Your task to perform on an android device: change the clock style Image 0: 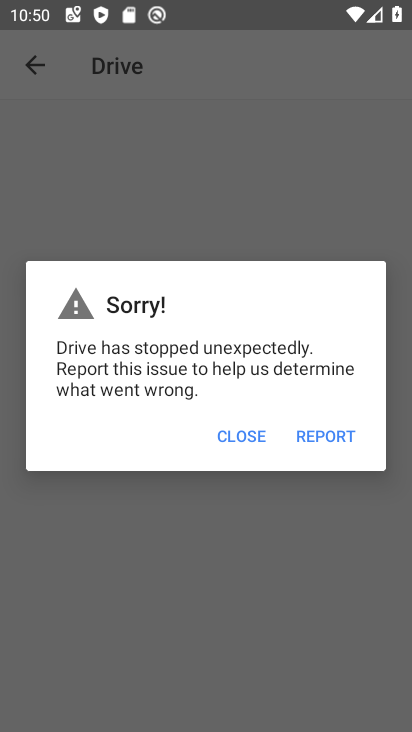
Step 0: click (252, 428)
Your task to perform on an android device: change the clock style Image 1: 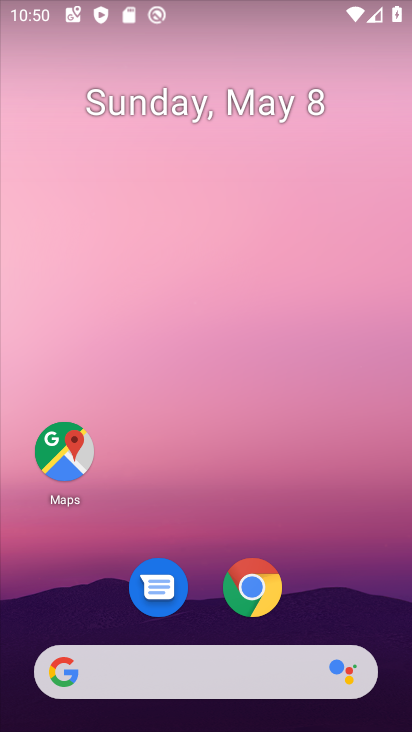
Step 1: drag from (224, 383) to (86, 7)
Your task to perform on an android device: change the clock style Image 2: 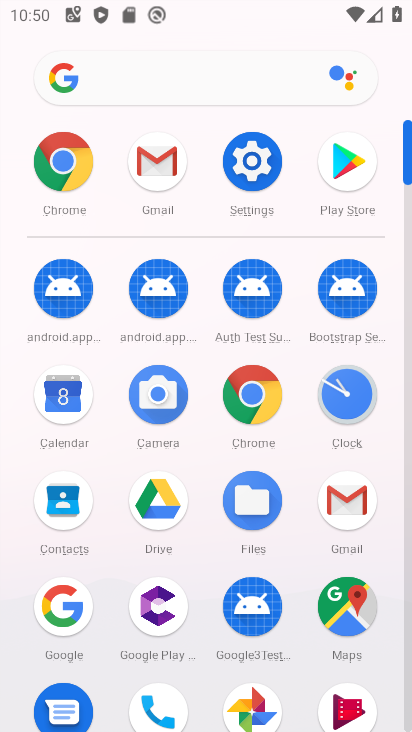
Step 2: click (347, 394)
Your task to perform on an android device: change the clock style Image 3: 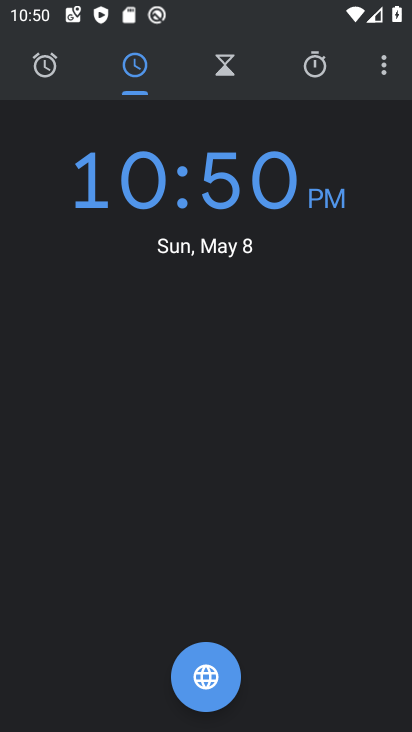
Step 3: click (381, 69)
Your task to perform on an android device: change the clock style Image 4: 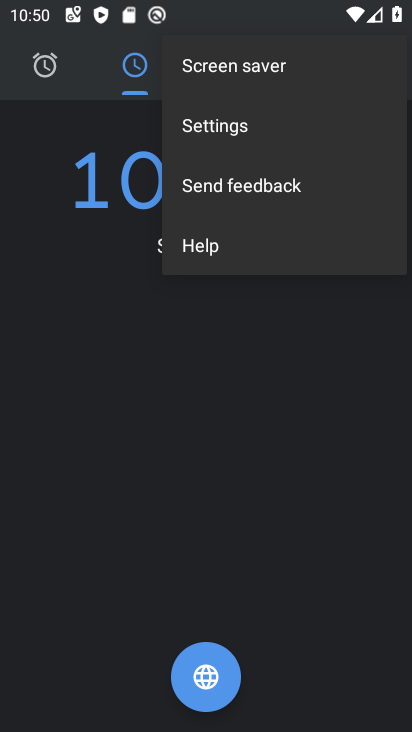
Step 4: click (222, 119)
Your task to perform on an android device: change the clock style Image 5: 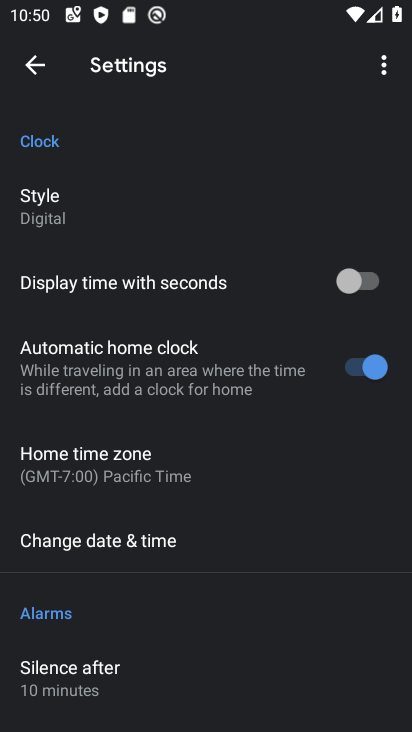
Step 5: click (80, 214)
Your task to perform on an android device: change the clock style Image 6: 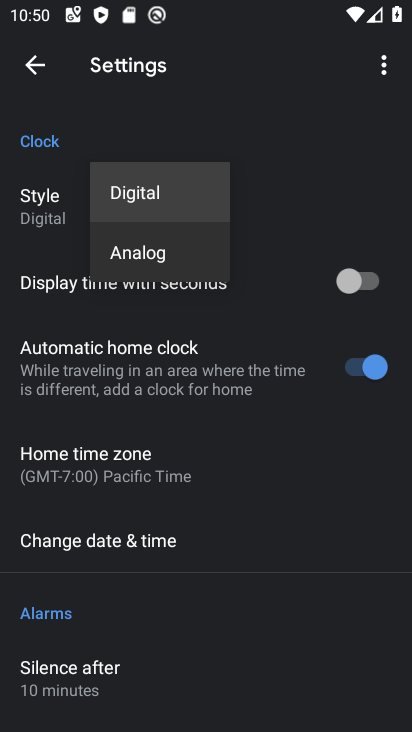
Step 6: click (144, 253)
Your task to perform on an android device: change the clock style Image 7: 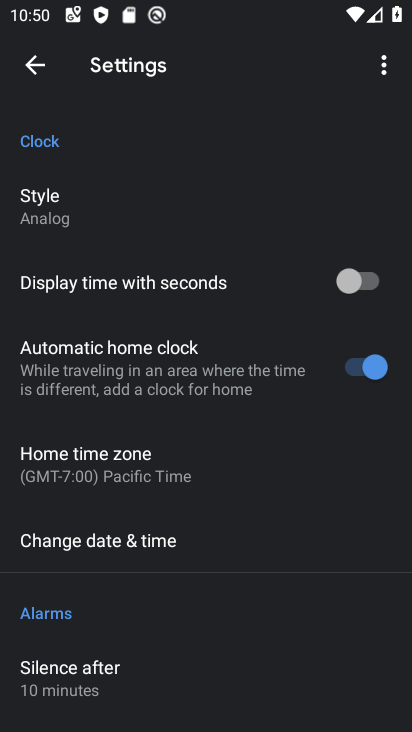
Step 7: task complete